Your task to perform on an android device: turn on javascript in the chrome app Image 0: 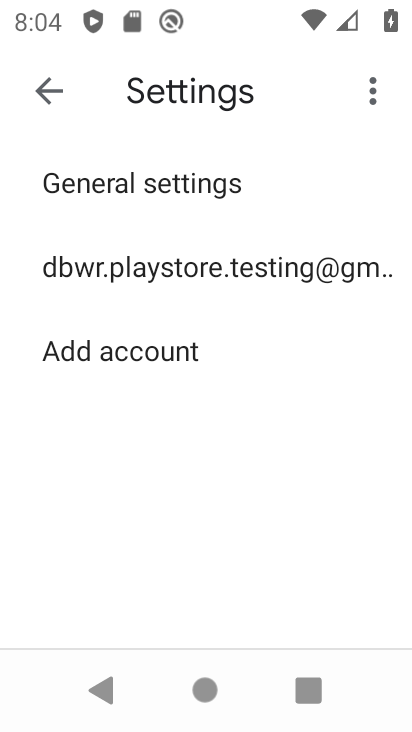
Step 0: click (43, 82)
Your task to perform on an android device: turn on javascript in the chrome app Image 1: 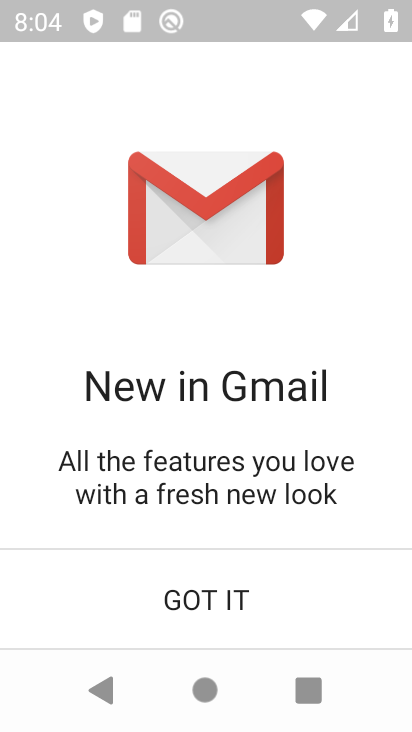
Step 1: press back button
Your task to perform on an android device: turn on javascript in the chrome app Image 2: 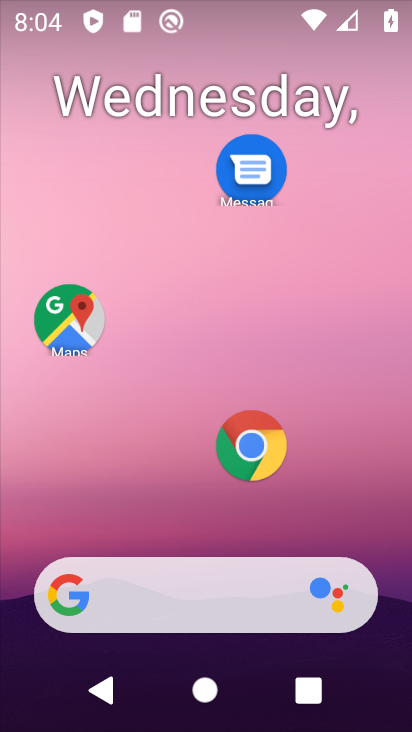
Step 2: drag from (352, 678) to (229, 134)
Your task to perform on an android device: turn on javascript in the chrome app Image 3: 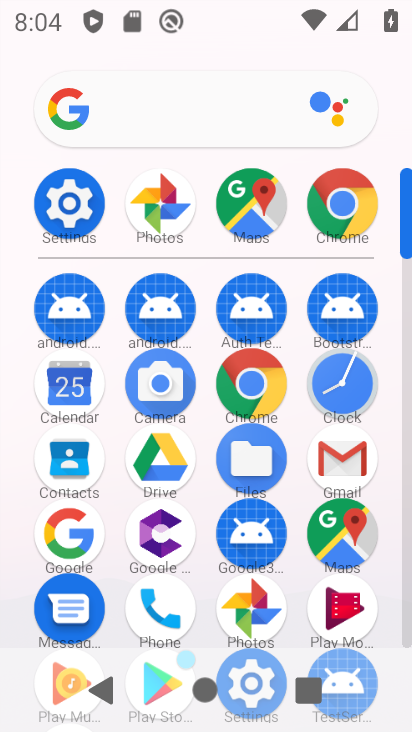
Step 3: click (337, 203)
Your task to perform on an android device: turn on javascript in the chrome app Image 4: 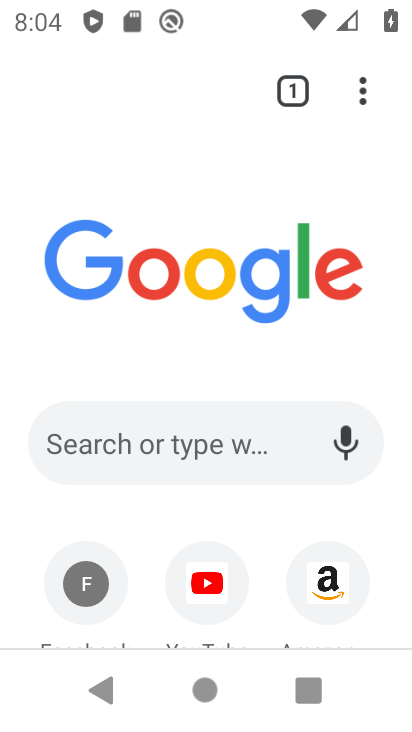
Step 4: drag from (359, 79) to (83, 472)
Your task to perform on an android device: turn on javascript in the chrome app Image 5: 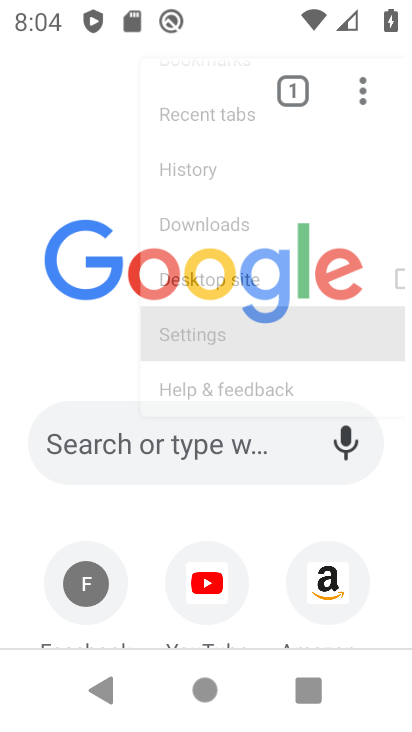
Step 5: click (83, 472)
Your task to perform on an android device: turn on javascript in the chrome app Image 6: 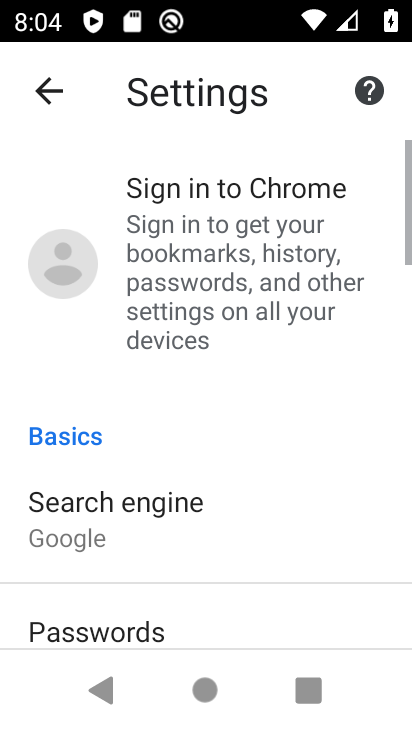
Step 6: drag from (193, 536) to (124, 118)
Your task to perform on an android device: turn on javascript in the chrome app Image 7: 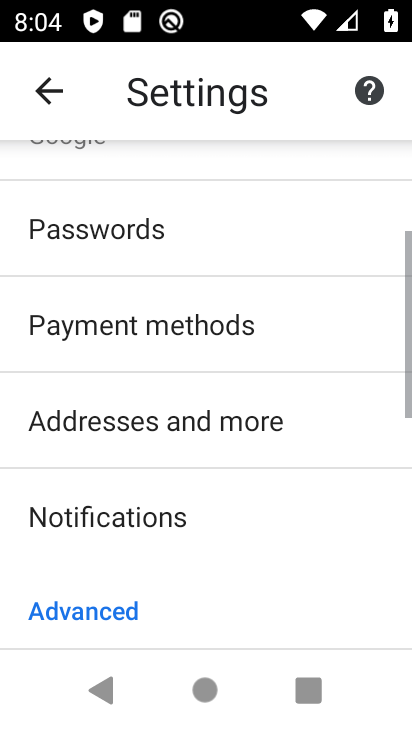
Step 7: drag from (203, 476) to (154, 151)
Your task to perform on an android device: turn on javascript in the chrome app Image 8: 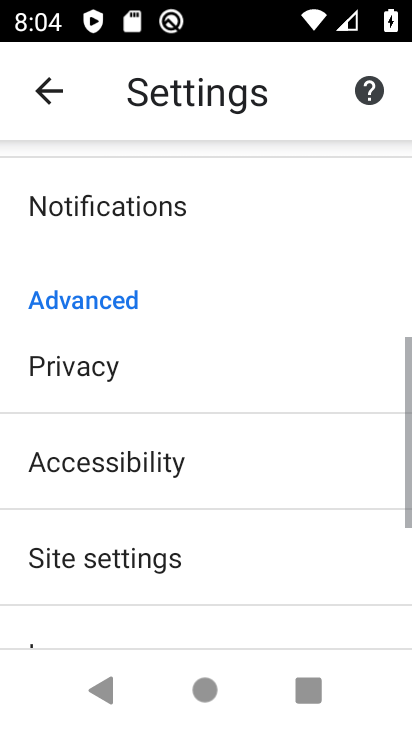
Step 8: drag from (204, 473) to (161, 216)
Your task to perform on an android device: turn on javascript in the chrome app Image 9: 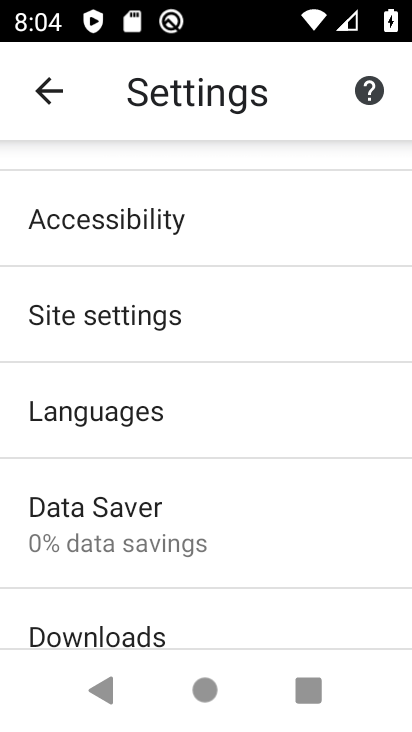
Step 9: click (101, 319)
Your task to perform on an android device: turn on javascript in the chrome app Image 10: 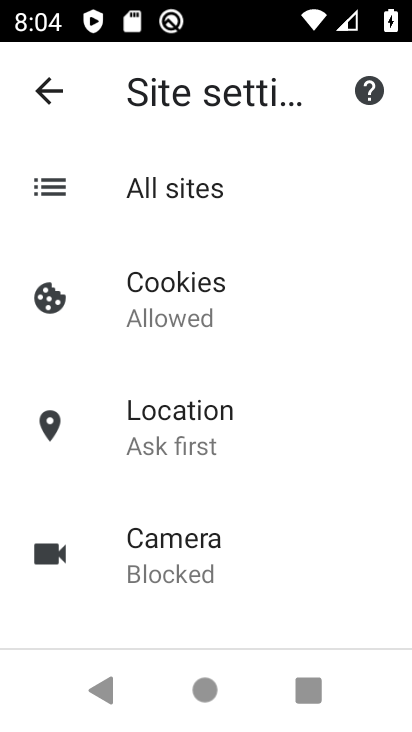
Step 10: drag from (259, 466) to (232, 254)
Your task to perform on an android device: turn on javascript in the chrome app Image 11: 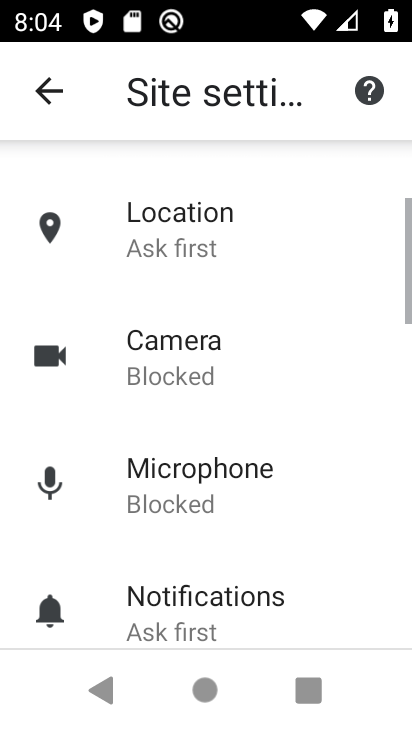
Step 11: drag from (255, 464) to (228, 189)
Your task to perform on an android device: turn on javascript in the chrome app Image 12: 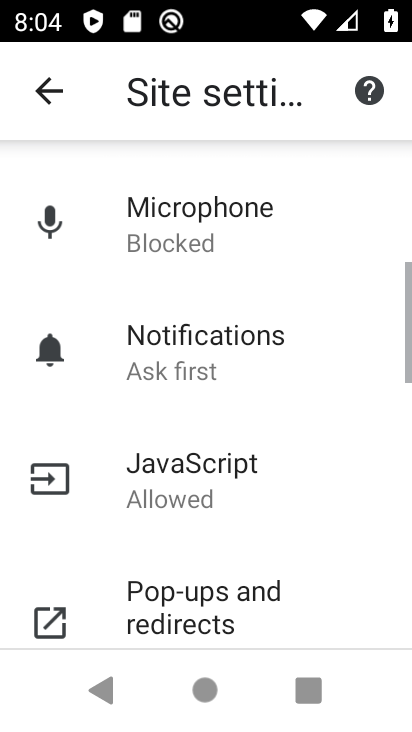
Step 12: drag from (225, 453) to (225, 253)
Your task to perform on an android device: turn on javascript in the chrome app Image 13: 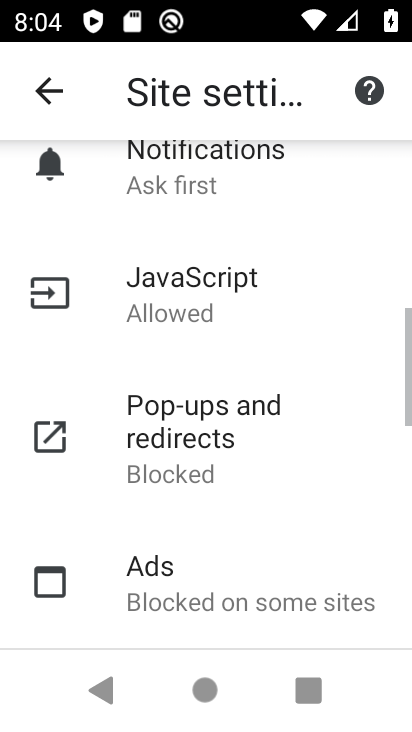
Step 13: click (165, 286)
Your task to perform on an android device: turn on javascript in the chrome app Image 14: 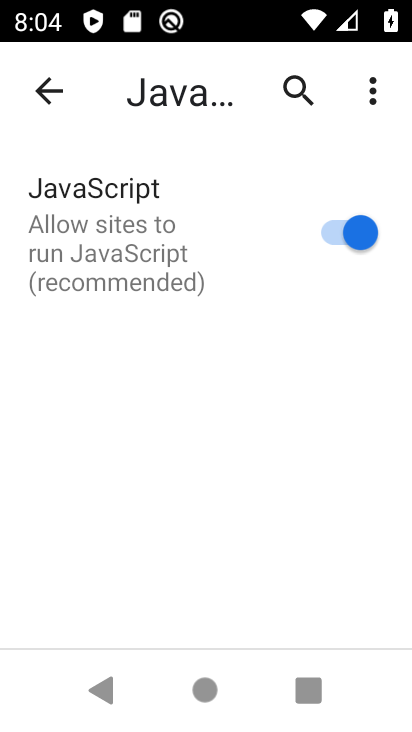
Step 14: task complete